Your task to perform on an android device: turn off picture-in-picture Image 0: 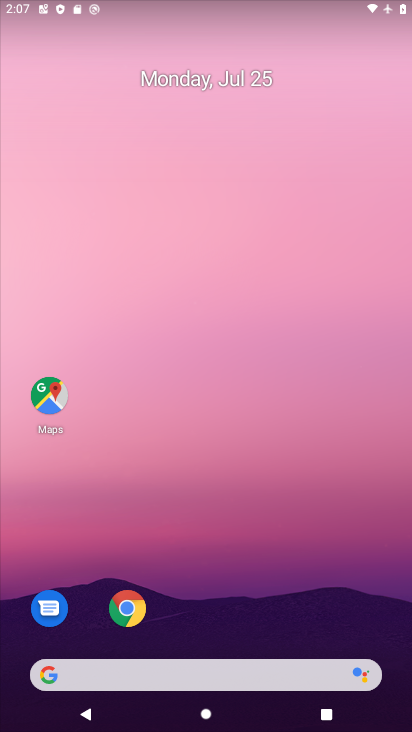
Step 0: drag from (218, 577) to (307, 83)
Your task to perform on an android device: turn off picture-in-picture Image 1: 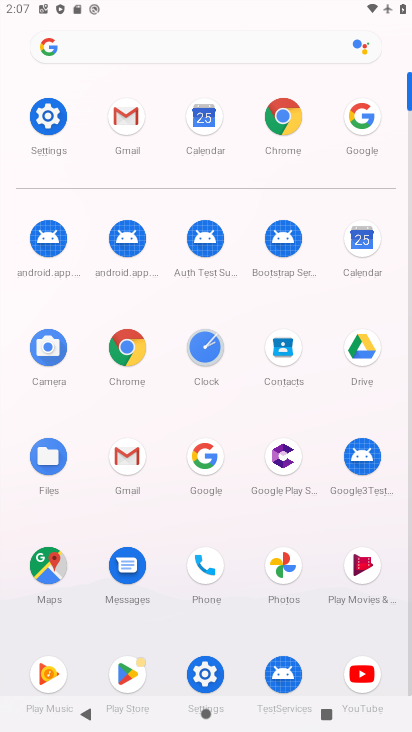
Step 1: click (65, 130)
Your task to perform on an android device: turn off picture-in-picture Image 2: 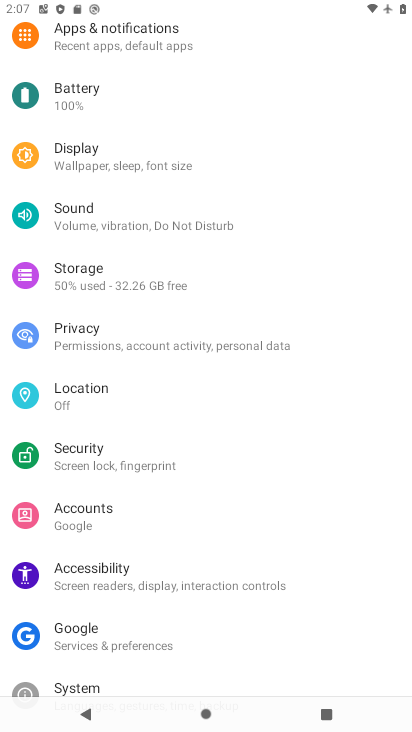
Step 2: click (107, 44)
Your task to perform on an android device: turn off picture-in-picture Image 3: 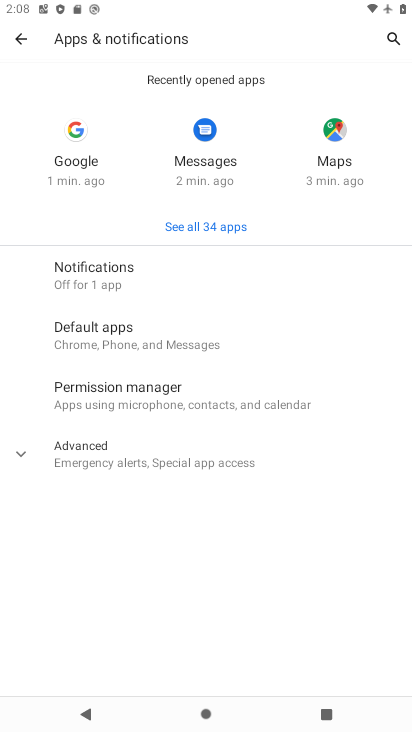
Step 3: click (142, 453)
Your task to perform on an android device: turn off picture-in-picture Image 4: 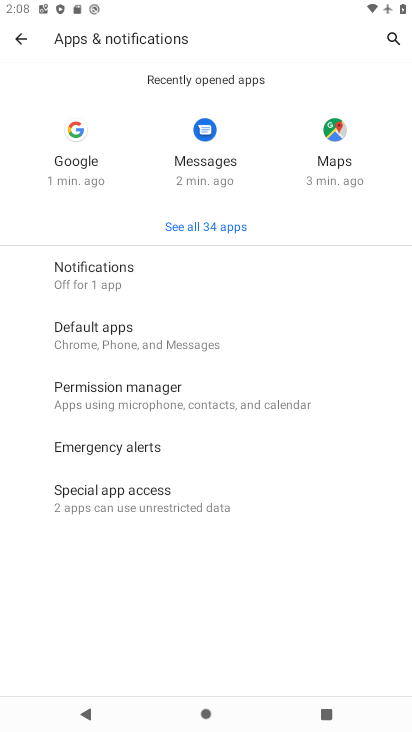
Step 4: click (165, 493)
Your task to perform on an android device: turn off picture-in-picture Image 5: 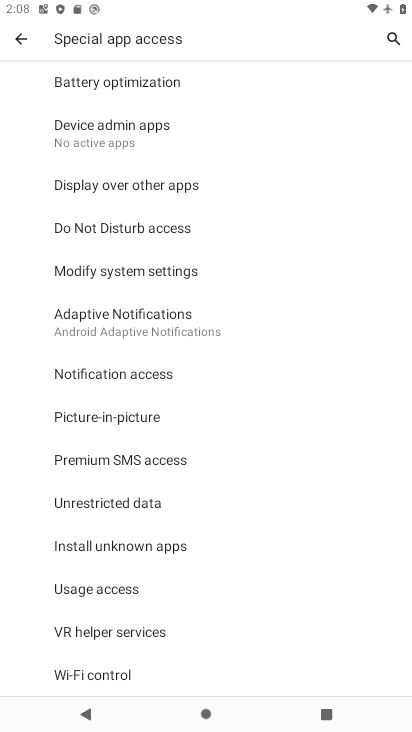
Step 5: click (128, 419)
Your task to perform on an android device: turn off picture-in-picture Image 6: 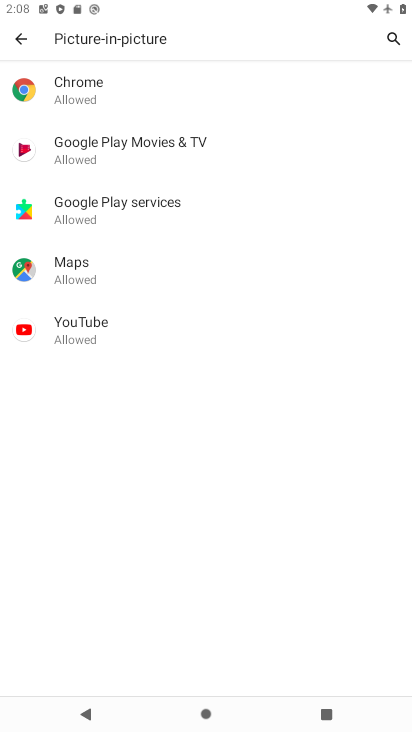
Step 6: click (149, 90)
Your task to perform on an android device: turn off picture-in-picture Image 7: 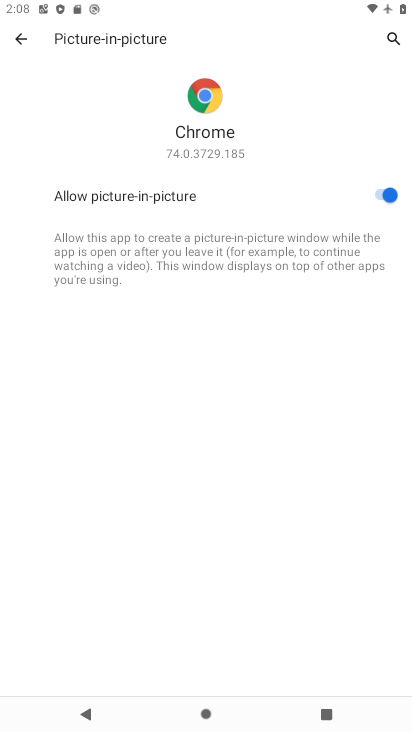
Step 7: click (377, 195)
Your task to perform on an android device: turn off picture-in-picture Image 8: 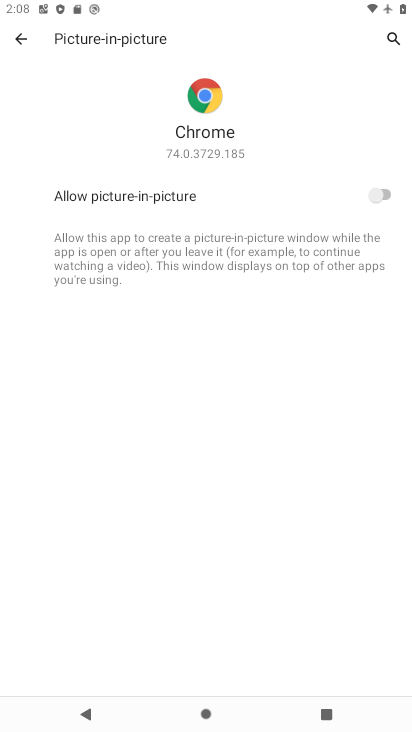
Step 8: task complete